Your task to perform on an android device: Is it going to rain tomorrow? Image 0: 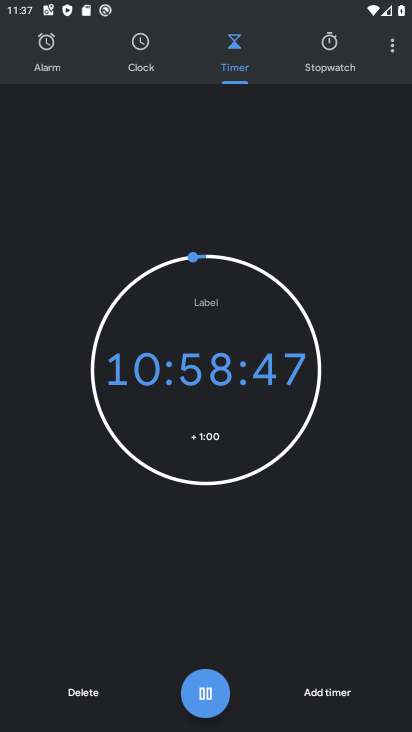
Step 0: press home button
Your task to perform on an android device: Is it going to rain tomorrow? Image 1: 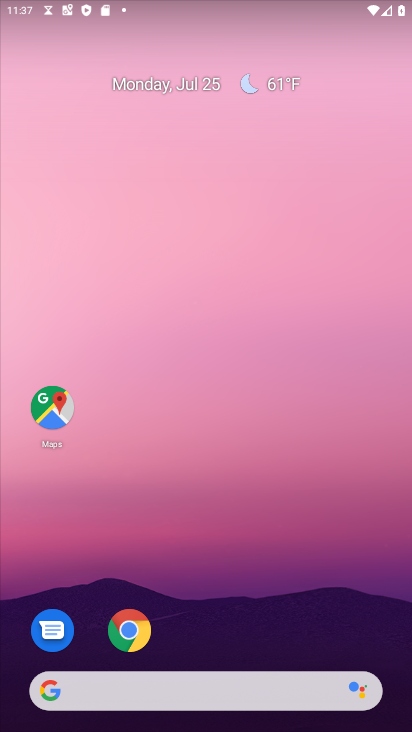
Step 1: click (163, 687)
Your task to perform on an android device: Is it going to rain tomorrow? Image 2: 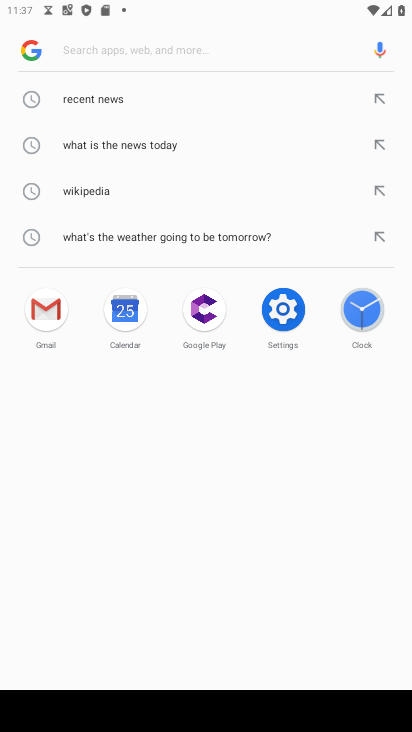
Step 2: type "is it going to rain tomorrow"
Your task to perform on an android device: Is it going to rain tomorrow? Image 3: 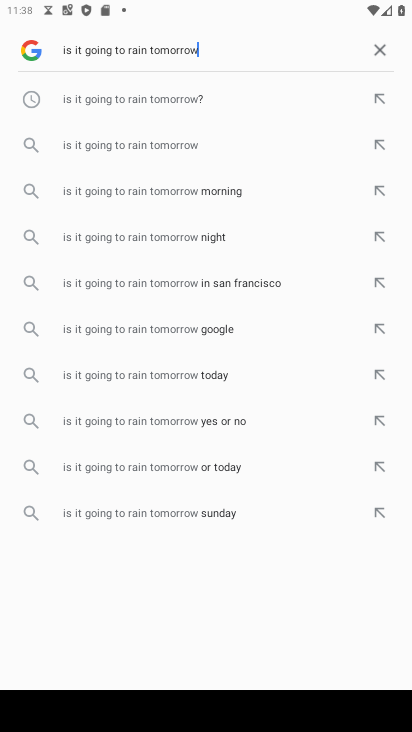
Step 3: click (174, 97)
Your task to perform on an android device: Is it going to rain tomorrow? Image 4: 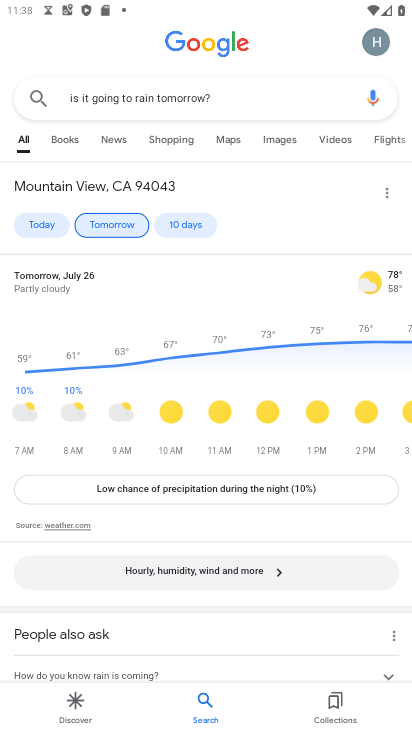
Step 4: task complete